Your task to perform on an android device: Go to location settings Image 0: 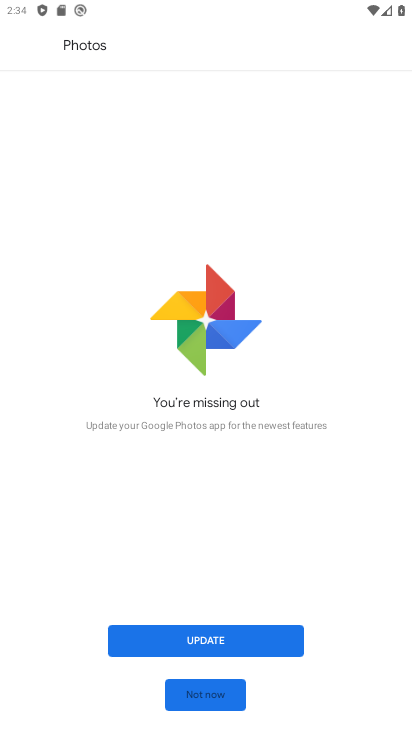
Step 0: press home button
Your task to perform on an android device: Go to location settings Image 1: 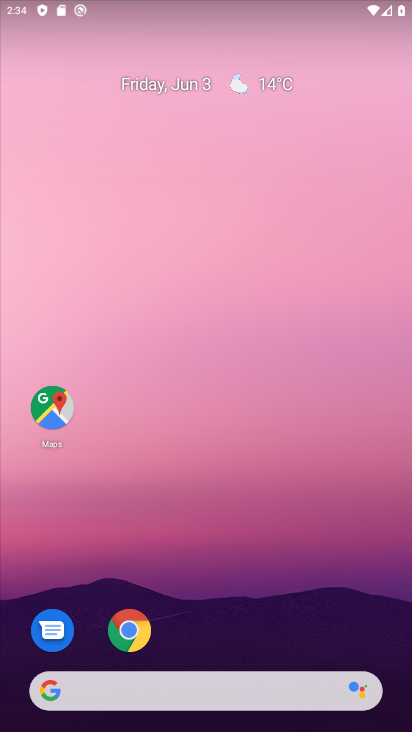
Step 1: drag from (251, 634) to (210, 209)
Your task to perform on an android device: Go to location settings Image 2: 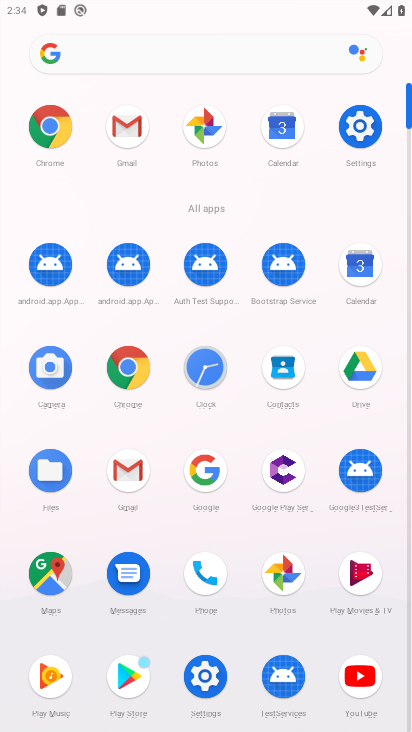
Step 2: click (369, 122)
Your task to perform on an android device: Go to location settings Image 3: 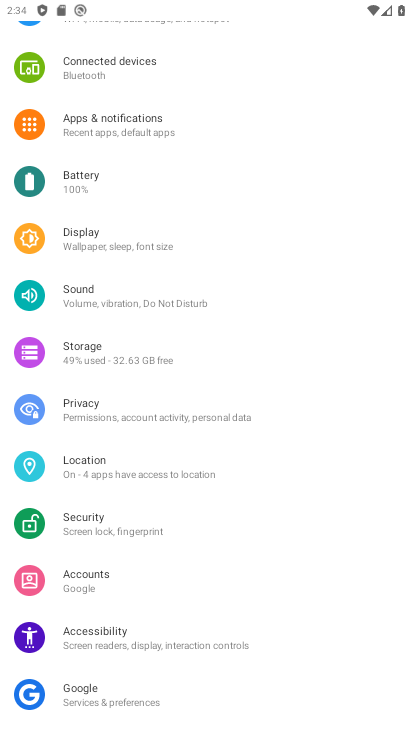
Step 3: click (154, 476)
Your task to perform on an android device: Go to location settings Image 4: 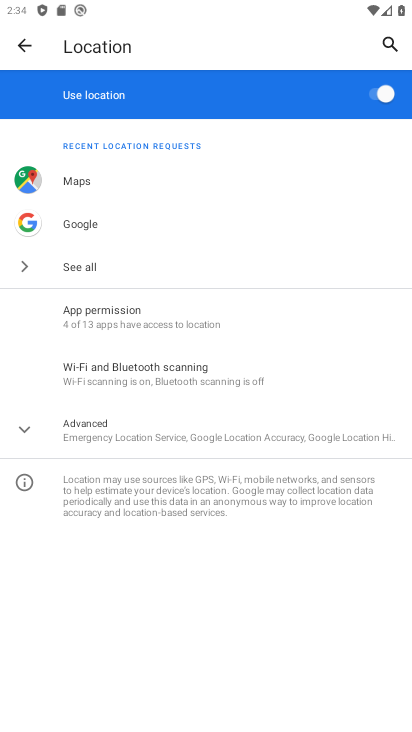
Step 4: task complete